Your task to perform on an android device: Search for vegetarian restaurants on Maps Image 0: 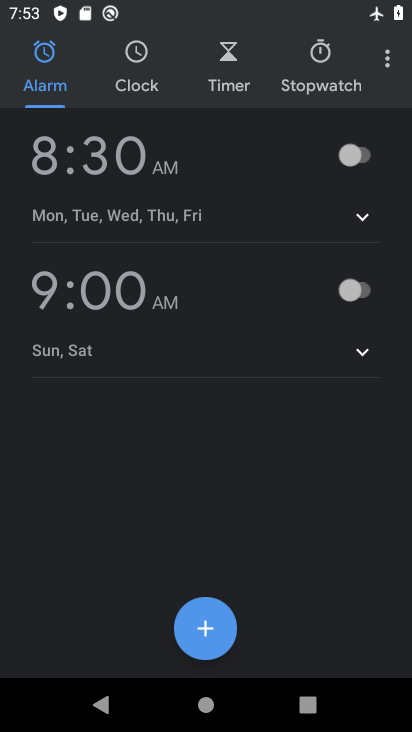
Step 0: press home button
Your task to perform on an android device: Search for vegetarian restaurants on Maps Image 1: 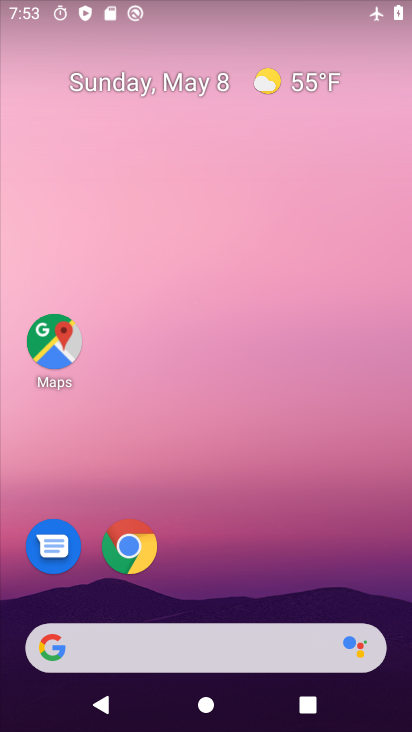
Step 1: click (45, 330)
Your task to perform on an android device: Search for vegetarian restaurants on Maps Image 2: 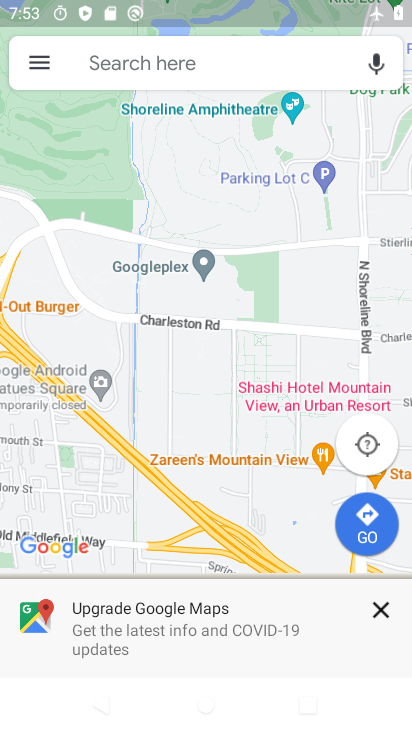
Step 2: click (172, 64)
Your task to perform on an android device: Search for vegetarian restaurants on Maps Image 3: 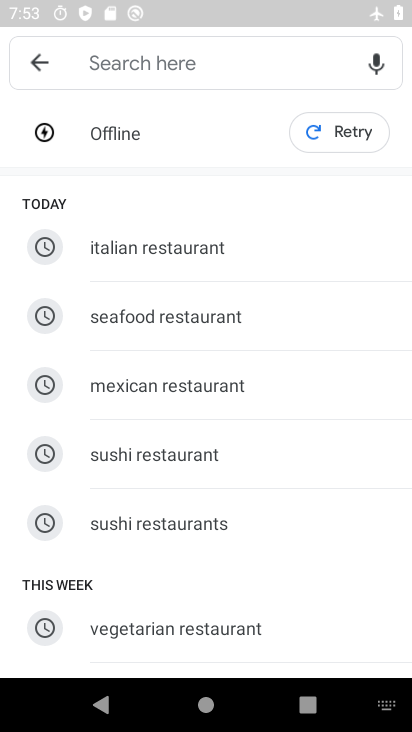
Step 3: click (200, 627)
Your task to perform on an android device: Search for vegetarian restaurants on Maps Image 4: 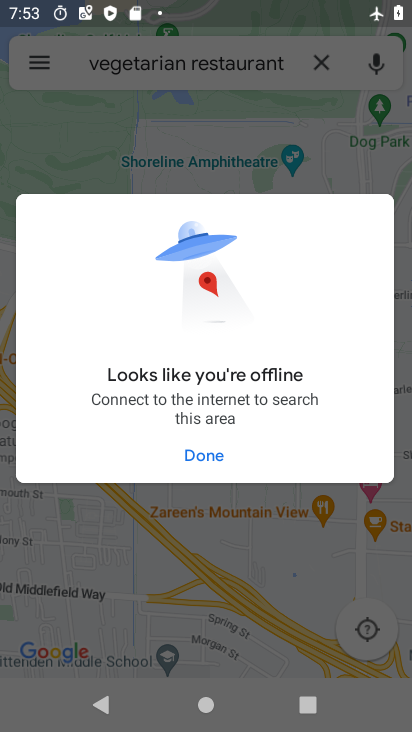
Step 4: task complete